Your task to perform on an android device: Go to Google Image 0: 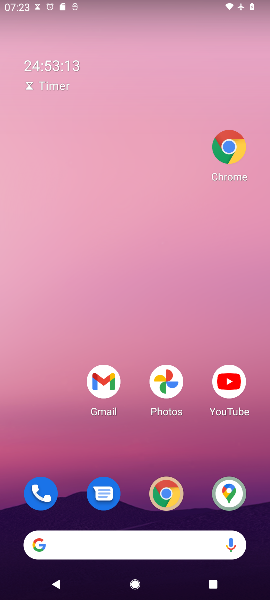
Step 0: press home button
Your task to perform on an android device: Go to Google Image 1: 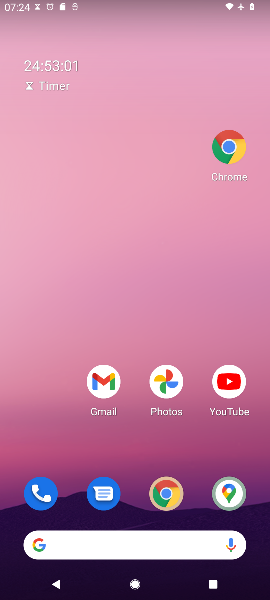
Step 1: click (35, 551)
Your task to perform on an android device: Go to Google Image 2: 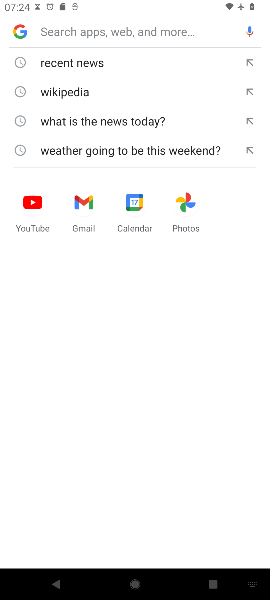
Step 2: task complete